Your task to perform on an android device: check android version Image 0: 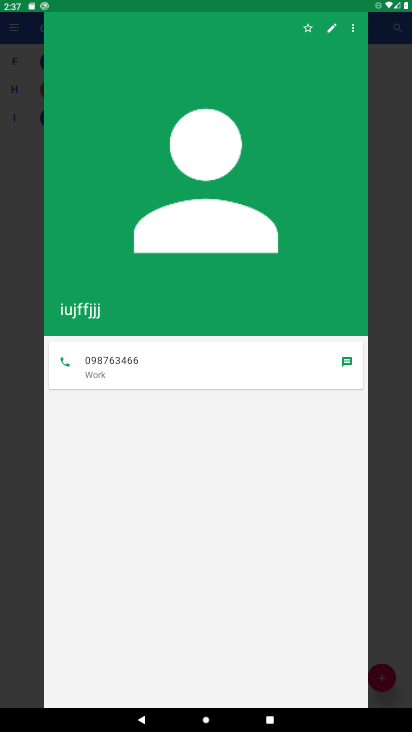
Step 0: press home button
Your task to perform on an android device: check android version Image 1: 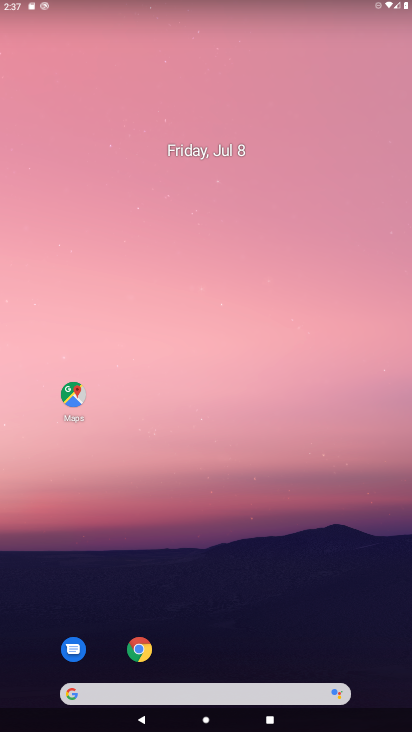
Step 1: drag from (335, 647) to (293, 133)
Your task to perform on an android device: check android version Image 2: 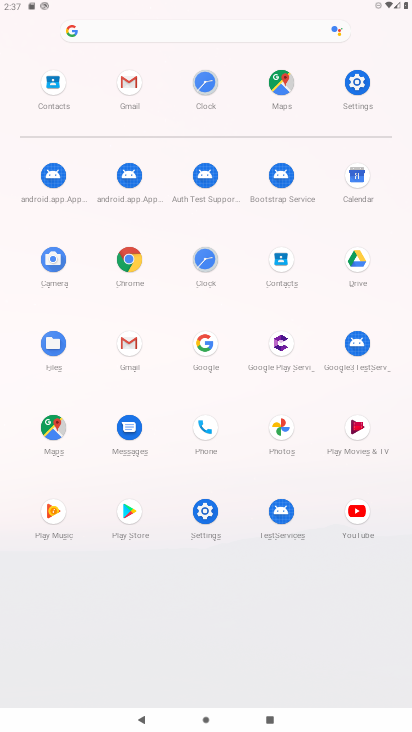
Step 2: click (202, 510)
Your task to perform on an android device: check android version Image 3: 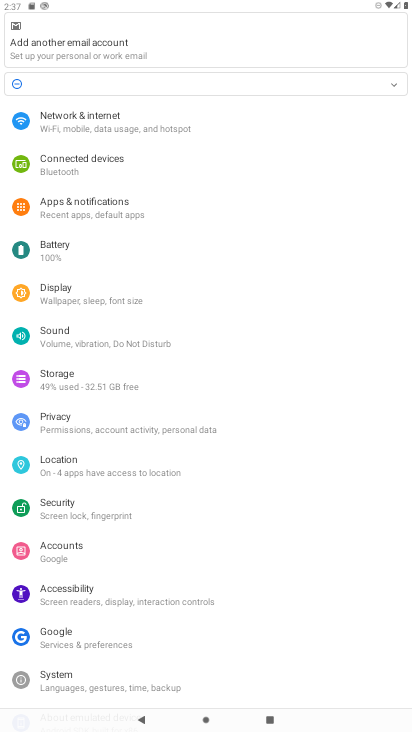
Step 3: drag from (272, 634) to (262, 202)
Your task to perform on an android device: check android version Image 4: 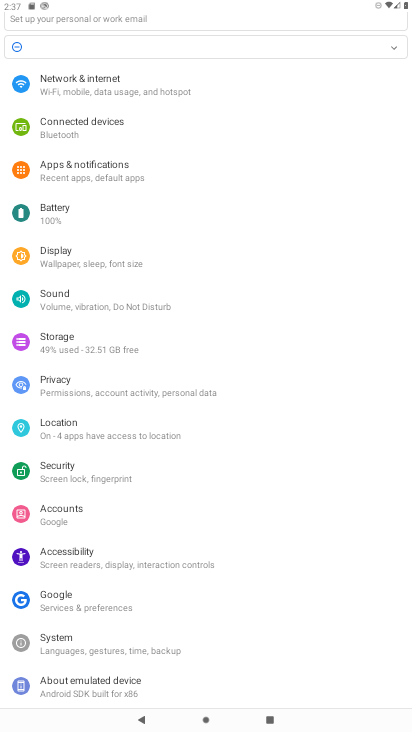
Step 4: click (79, 681)
Your task to perform on an android device: check android version Image 5: 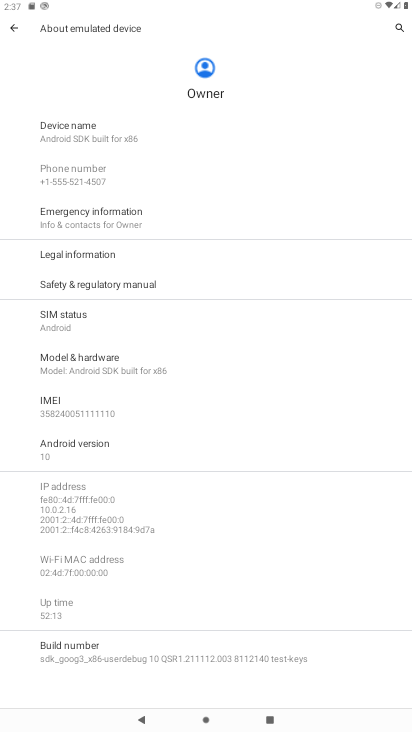
Step 5: click (76, 446)
Your task to perform on an android device: check android version Image 6: 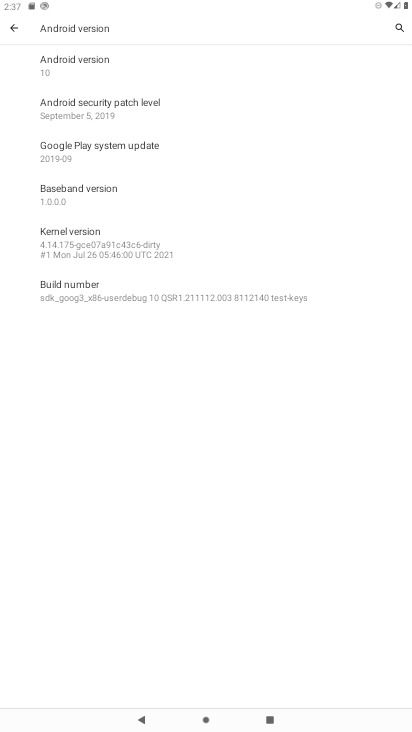
Step 6: task complete